Your task to perform on an android device: turn on priority inbox in the gmail app Image 0: 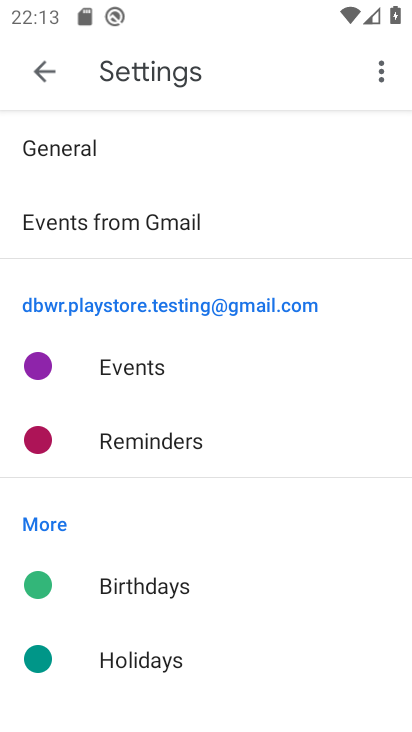
Step 0: press home button
Your task to perform on an android device: turn on priority inbox in the gmail app Image 1: 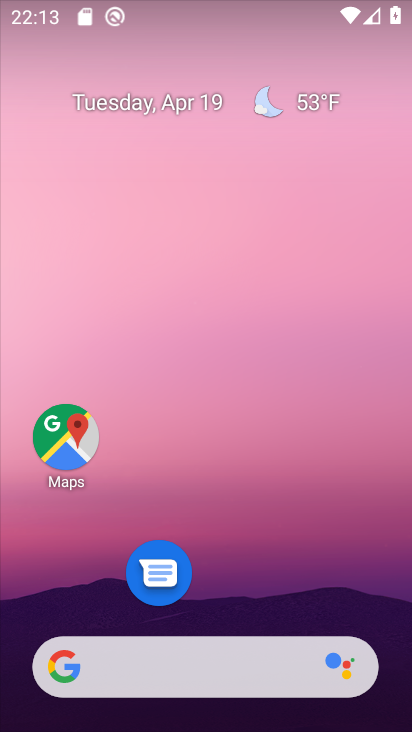
Step 1: drag from (232, 479) to (286, 79)
Your task to perform on an android device: turn on priority inbox in the gmail app Image 2: 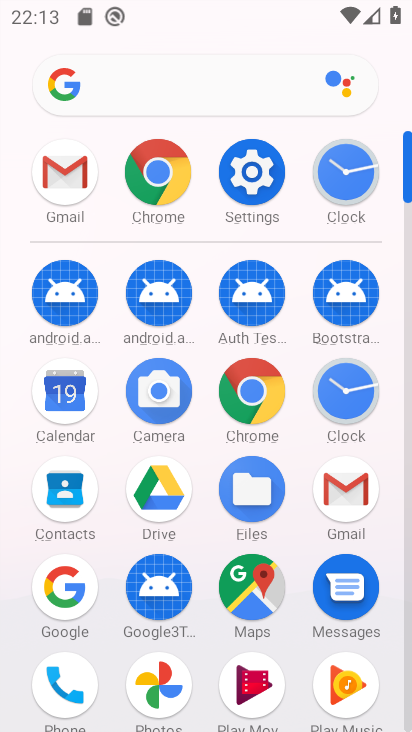
Step 2: click (338, 484)
Your task to perform on an android device: turn on priority inbox in the gmail app Image 3: 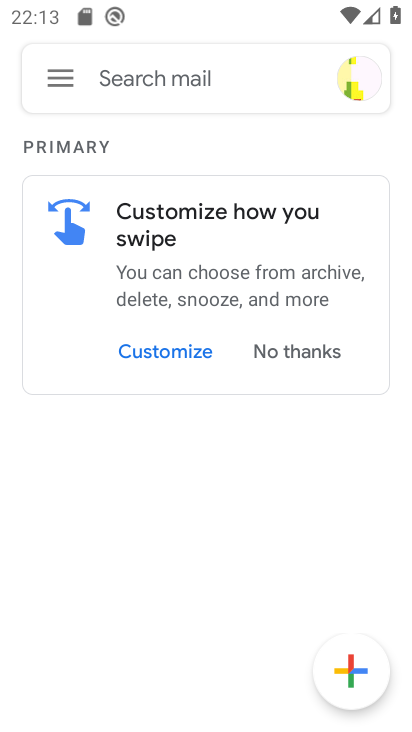
Step 3: click (62, 80)
Your task to perform on an android device: turn on priority inbox in the gmail app Image 4: 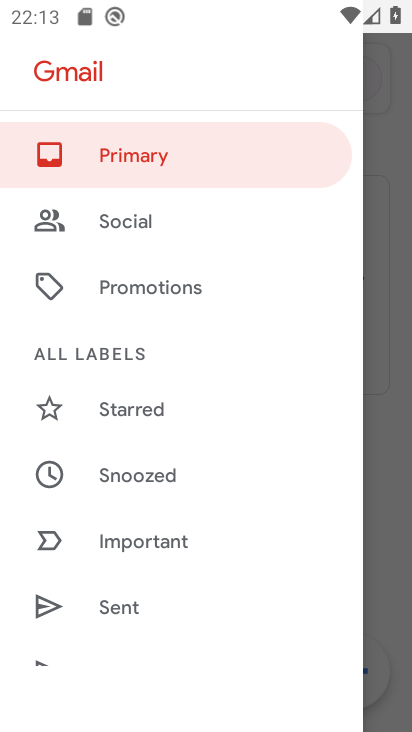
Step 4: drag from (172, 591) to (191, 57)
Your task to perform on an android device: turn on priority inbox in the gmail app Image 5: 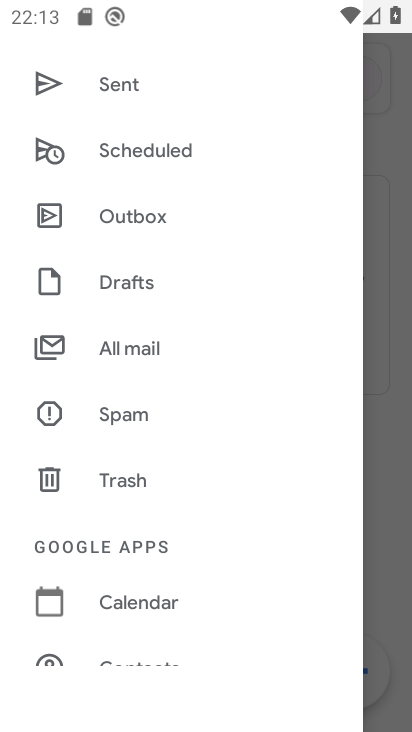
Step 5: drag from (185, 599) to (185, 137)
Your task to perform on an android device: turn on priority inbox in the gmail app Image 6: 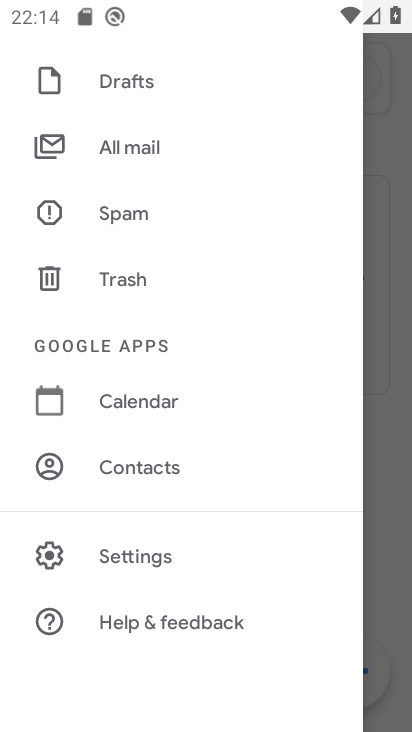
Step 6: click (178, 552)
Your task to perform on an android device: turn on priority inbox in the gmail app Image 7: 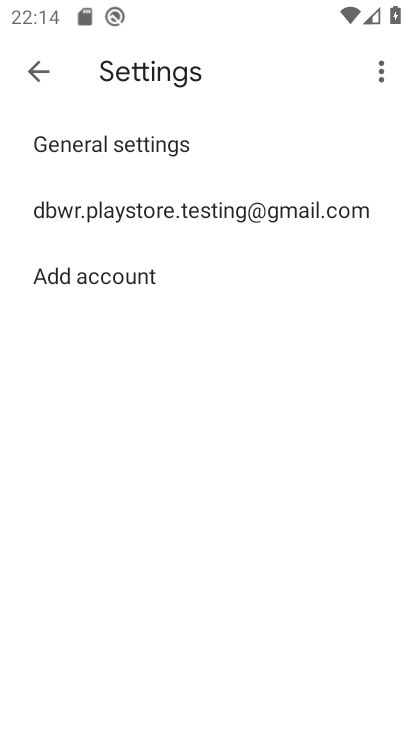
Step 7: click (209, 198)
Your task to perform on an android device: turn on priority inbox in the gmail app Image 8: 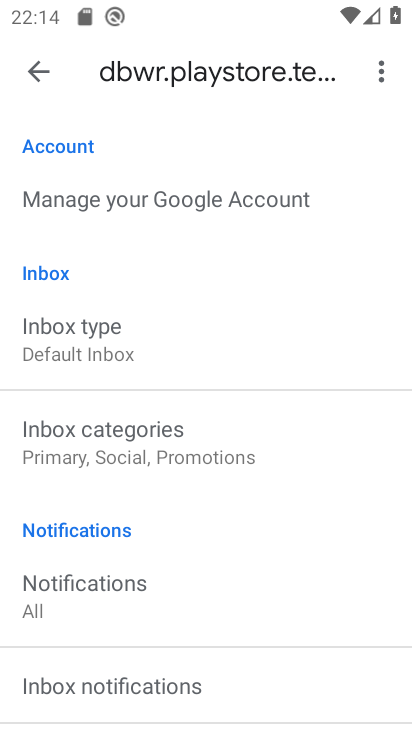
Step 8: click (136, 336)
Your task to perform on an android device: turn on priority inbox in the gmail app Image 9: 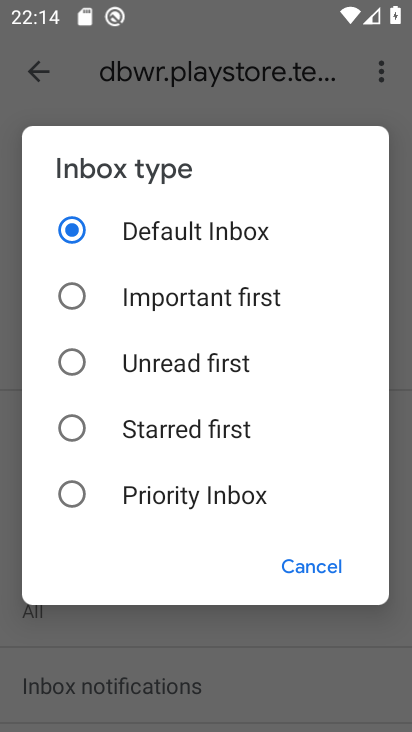
Step 9: click (70, 494)
Your task to perform on an android device: turn on priority inbox in the gmail app Image 10: 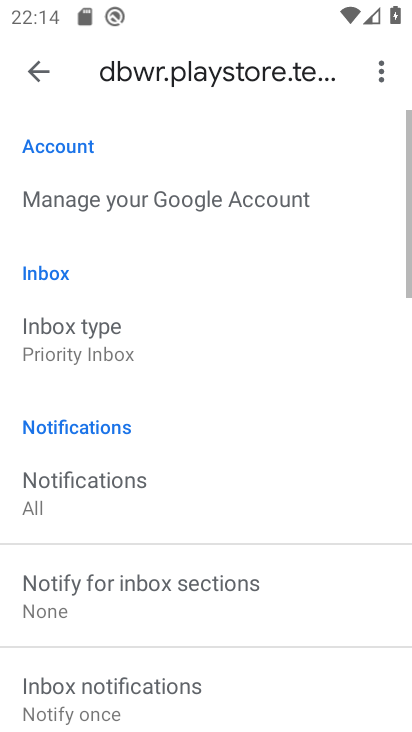
Step 10: task complete